Your task to perform on an android device: Open Reddit.com Image 0: 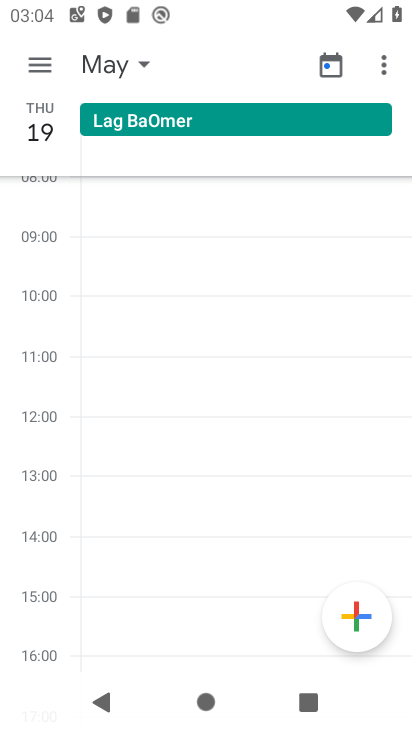
Step 0: press home button
Your task to perform on an android device: Open Reddit.com Image 1: 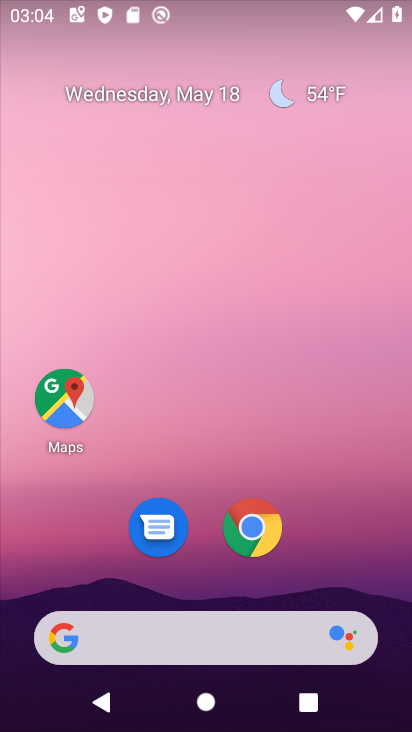
Step 1: click (255, 525)
Your task to perform on an android device: Open Reddit.com Image 2: 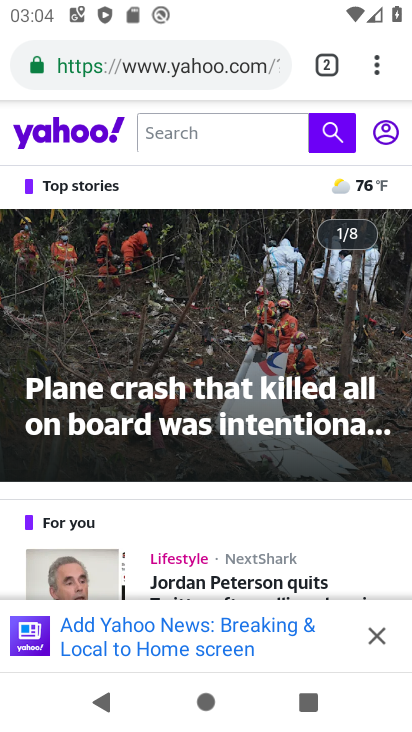
Step 2: click (321, 59)
Your task to perform on an android device: Open Reddit.com Image 3: 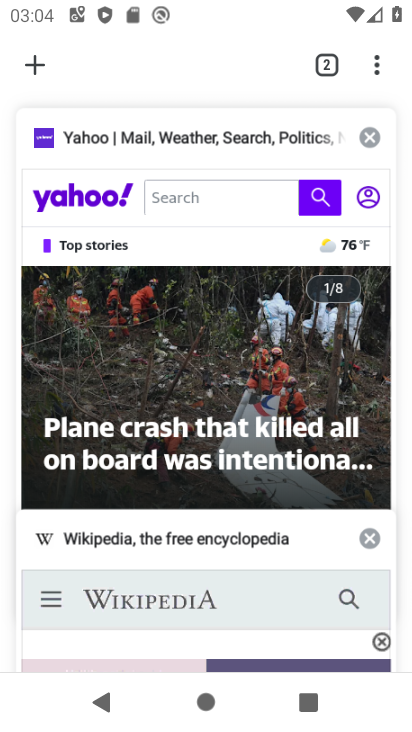
Step 3: click (23, 64)
Your task to perform on an android device: Open Reddit.com Image 4: 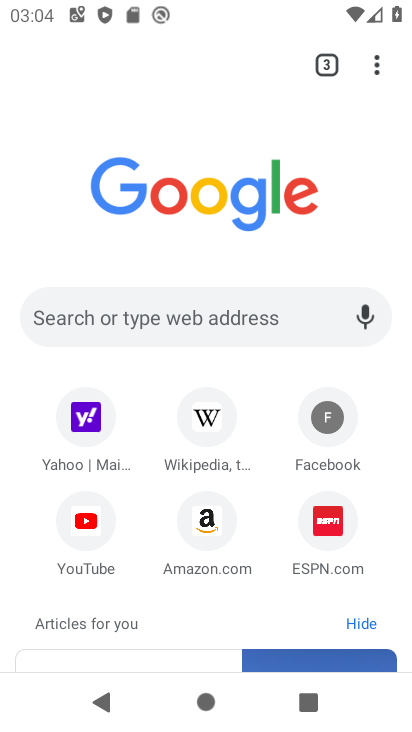
Step 4: click (179, 320)
Your task to perform on an android device: Open Reddit.com Image 5: 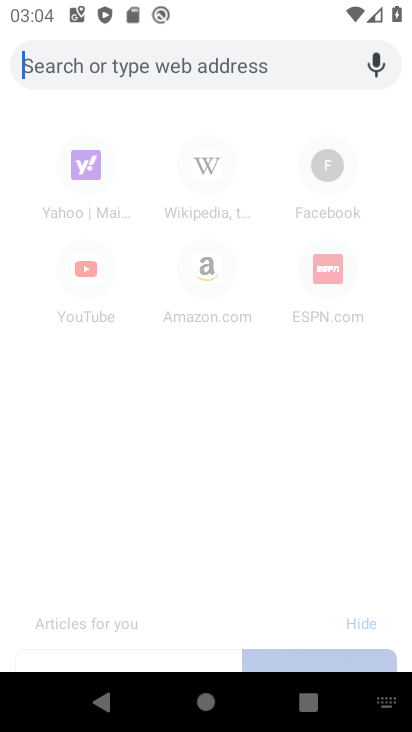
Step 5: type "reddit"
Your task to perform on an android device: Open Reddit.com Image 6: 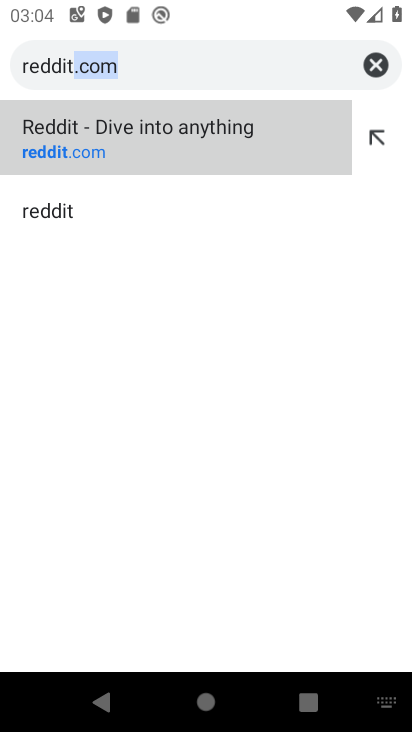
Step 6: click (110, 127)
Your task to perform on an android device: Open Reddit.com Image 7: 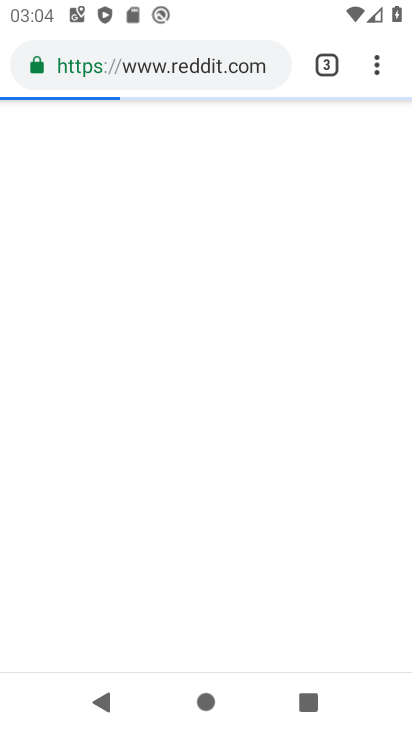
Step 7: task complete